Your task to perform on an android device: Go to wifi settings Image 0: 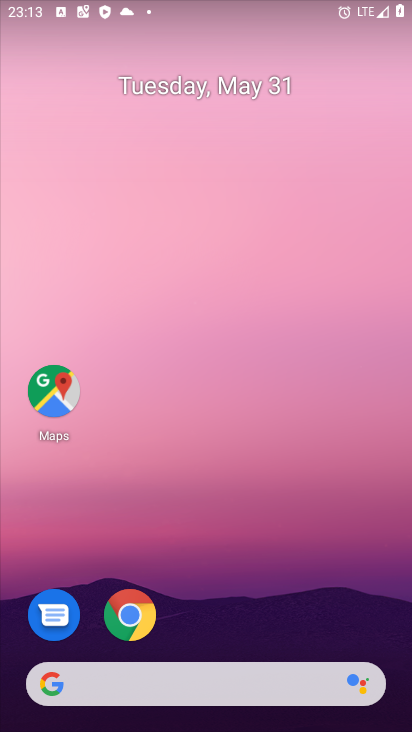
Step 0: drag from (385, 622) to (309, 100)
Your task to perform on an android device: Go to wifi settings Image 1: 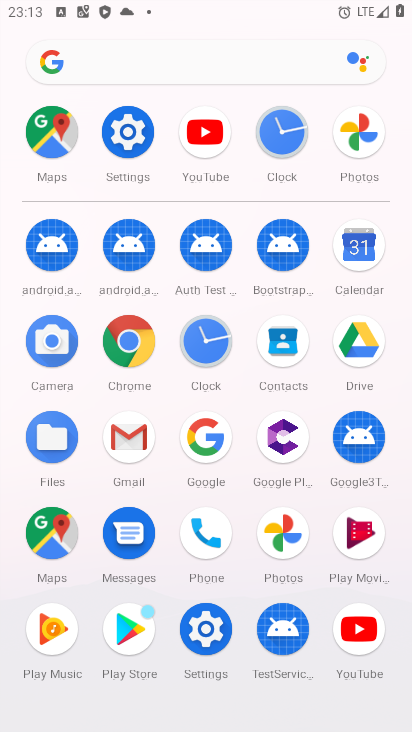
Step 1: click (208, 630)
Your task to perform on an android device: Go to wifi settings Image 2: 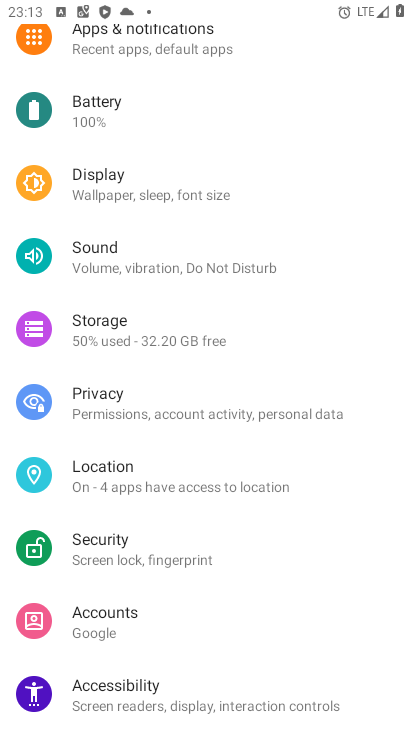
Step 2: drag from (320, 224) to (307, 484)
Your task to perform on an android device: Go to wifi settings Image 3: 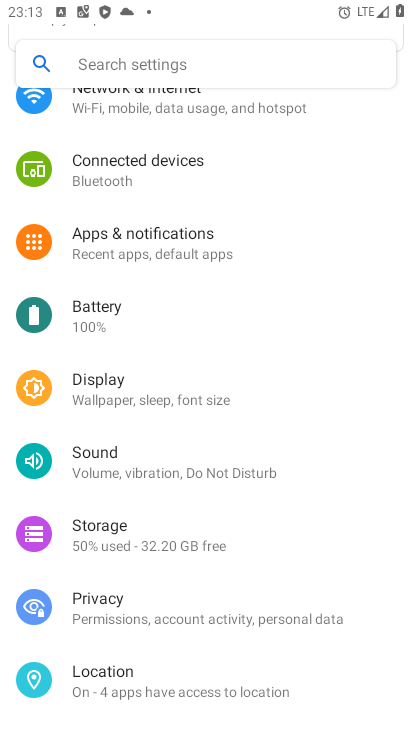
Step 3: drag from (326, 184) to (312, 434)
Your task to perform on an android device: Go to wifi settings Image 4: 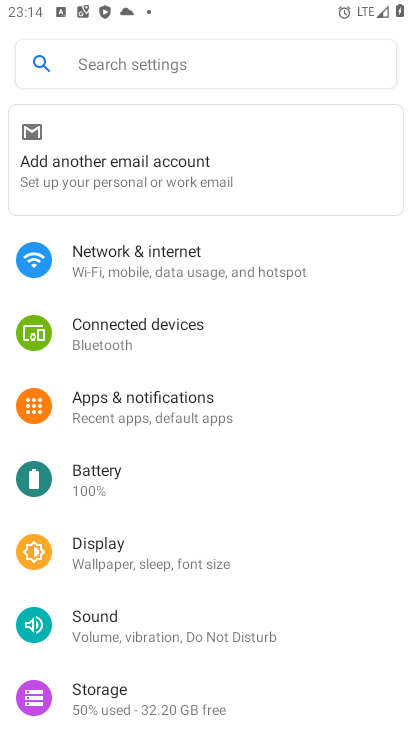
Step 4: click (103, 250)
Your task to perform on an android device: Go to wifi settings Image 5: 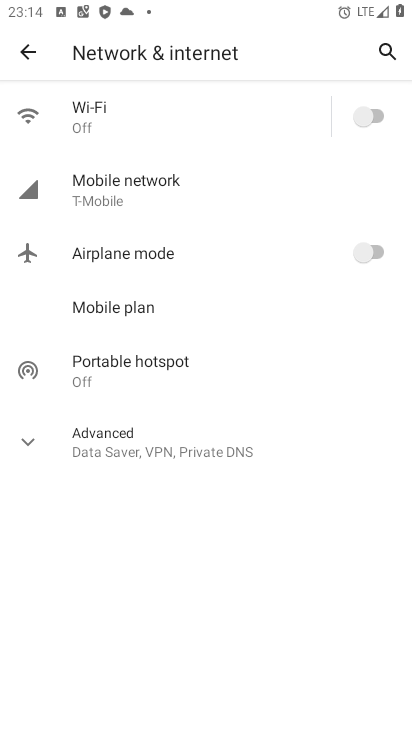
Step 5: click (73, 111)
Your task to perform on an android device: Go to wifi settings Image 6: 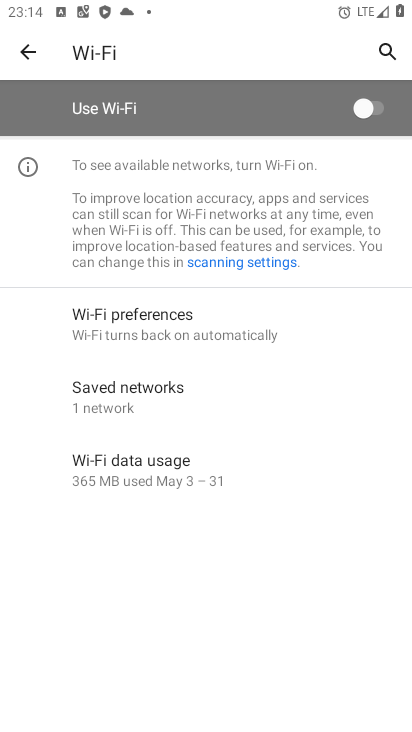
Step 6: task complete